Your task to perform on an android device: delete browsing data in the chrome app Image 0: 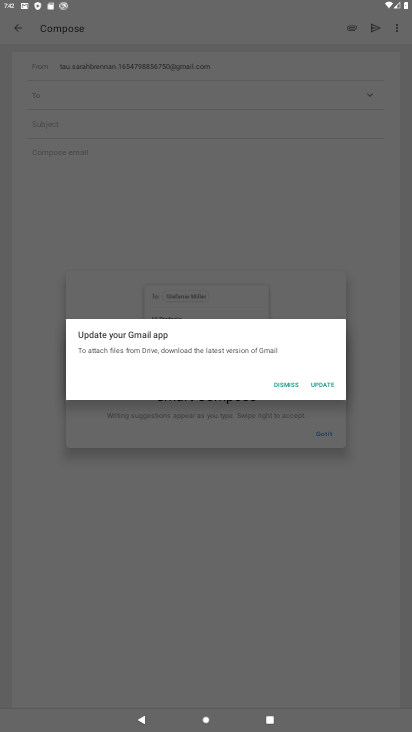
Step 0: press home button
Your task to perform on an android device: delete browsing data in the chrome app Image 1: 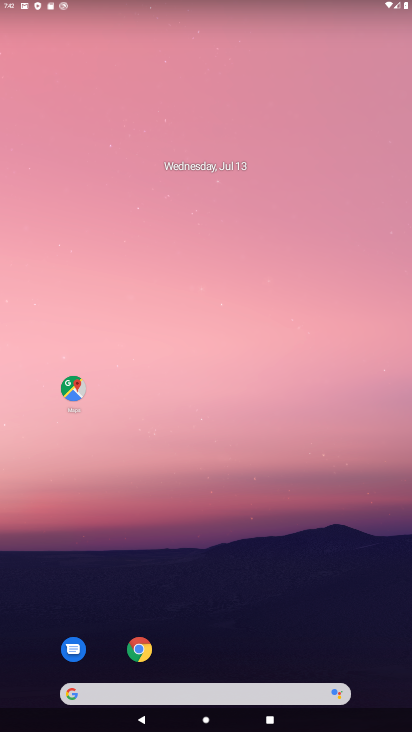
Step 1: click (149, 651)
Your task to perform on an android device: delete browsing data in the chrome app Image 2: 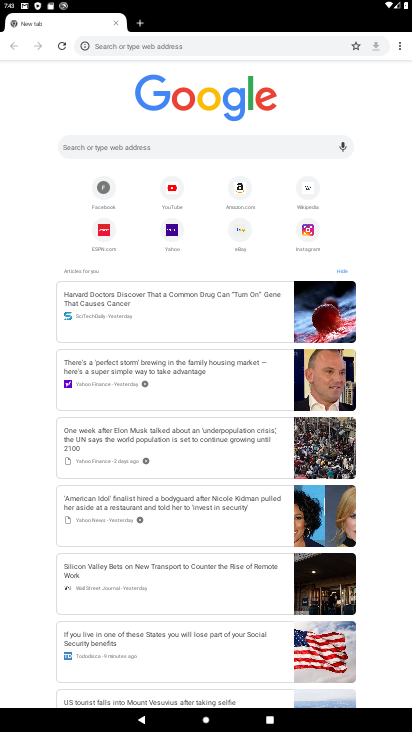
Step 2: click (404, 46)
Your task to perform on an android device: delete browsing data in the chrome app Image 3: 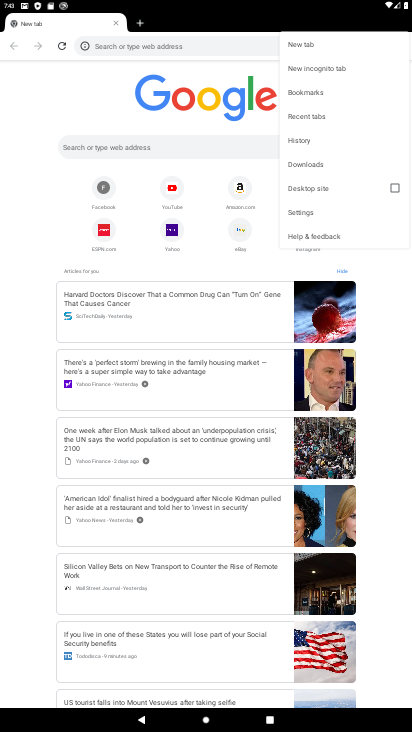
Step 3: click (303, 135)
Your task to perform on an android device: delete browsing data in the chrome app Image 4: 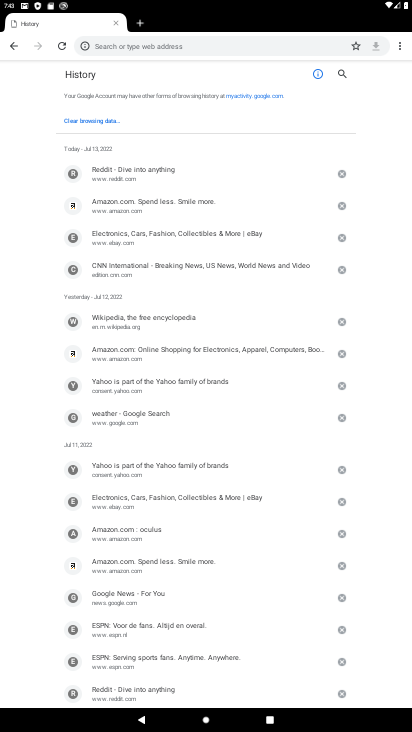
Step 4: click (91, 120)
Your task to perform on an android device: delete browsing data in the chrome app Image 5: 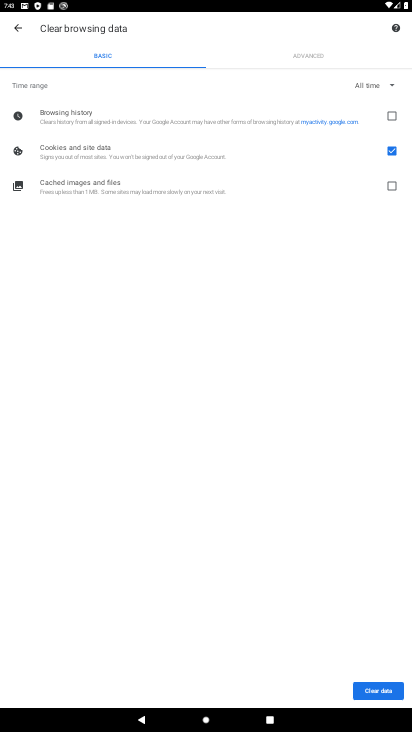
Step 5: click (396, 189)
Your task to perform on an android device: delete browsing data in the chrome app Image 6: 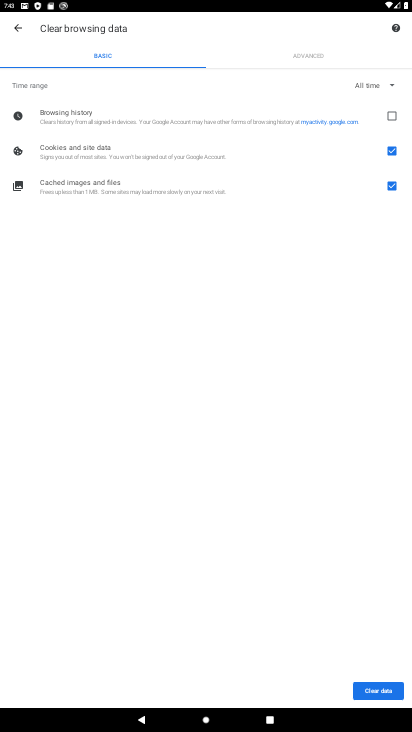
Step 6: click (397, 118)
Your task to perform on an android device: delete browsing data in the chrome app Image 7: 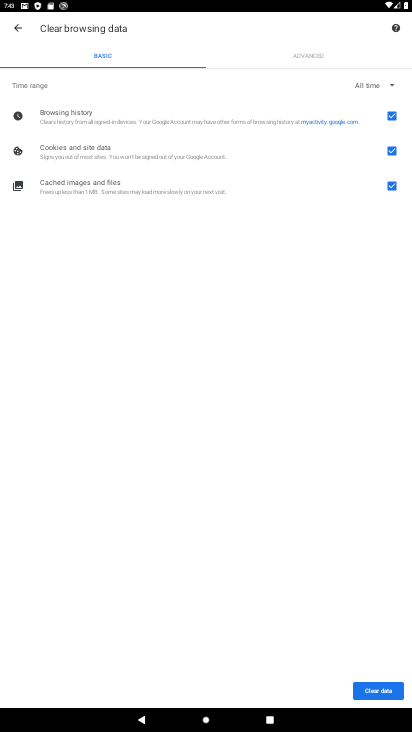
Step 7: click (366, 688)
Your task to perform on an android device: delete browsing data in the chrome app Image 8: 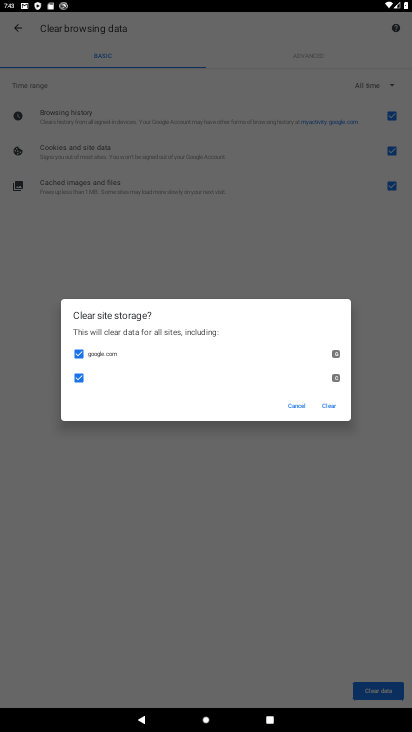
Step 8: click (326, 408)
Your task to perform on an android device: delete browsing data in the chrome app Image 9: 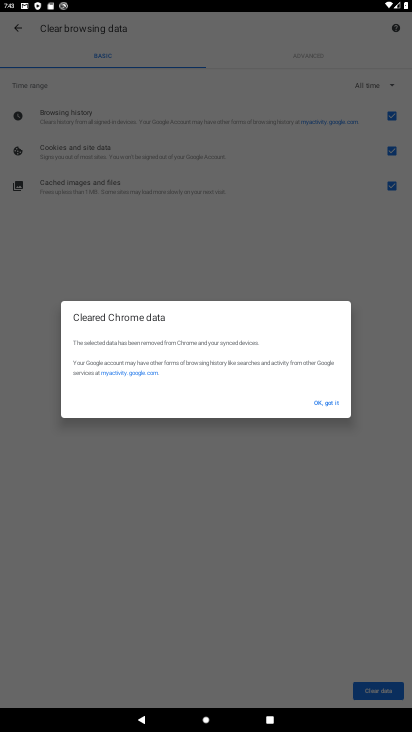
Step 9: drag from (411, 329) to (316, 412)
Your task to perform on an android device: delete browsing data in the chrome app Image 10: 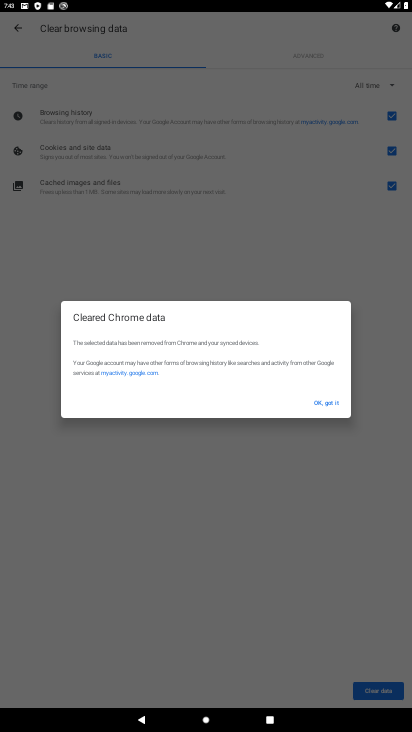
Step 10: click (328, 394)
Your task to perform on an android device: delete browsing data in the chrome app Image 11: 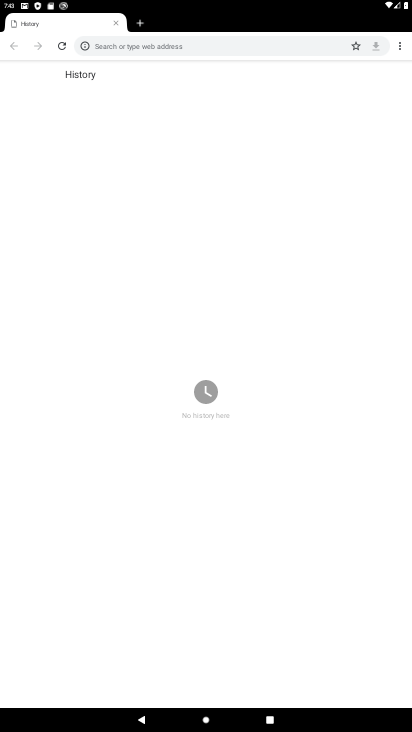
Step 11: task complete